Your task to perform on an android device: What's the weather going to be this weekend? Image 0: 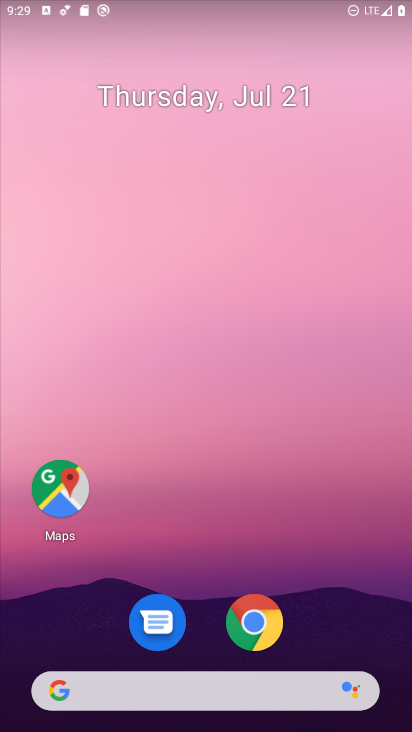
Step 0: click (178, 684)
Your task to perform on an android device: What's the weather going to be this weekend? Image 1: 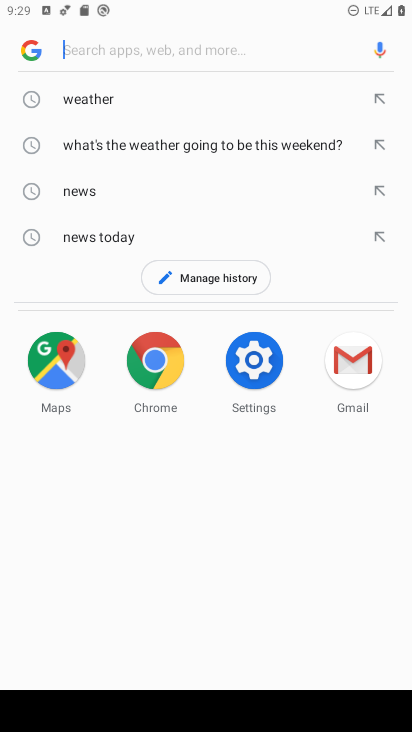
Step 1: type "What's the weather going to be this weekend?"
Your task to perform on an android device: What's the weather going to be this weekend? Image 2: 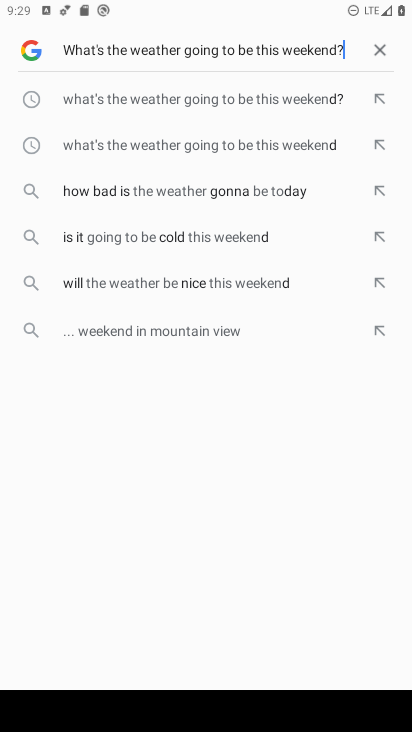
Step 2: press enter
Your task to perform on an android device: What's the weather going to be this weekend? Image 3: 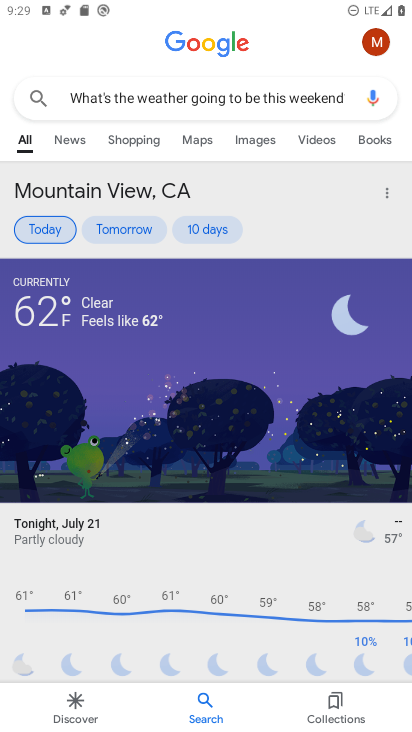
Step 3: task complete